Your task to perform on an android device: delete the emails in spam in the gmail app Image 0: 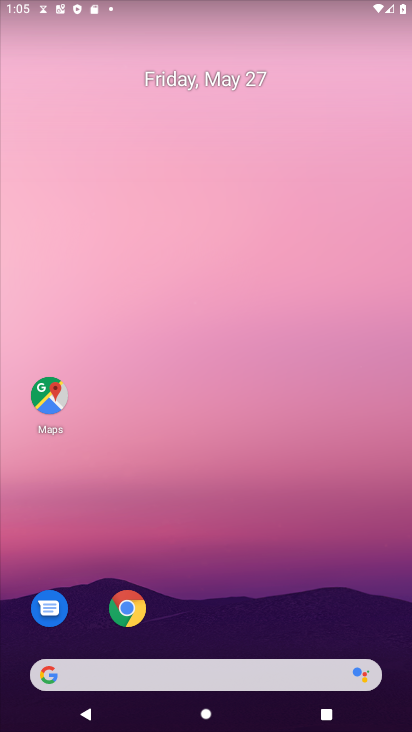
Step 0: drag from (189, 633) to (272, 84)
Your task to perform on an android device: delete the emails in spam in the gmail app Image 1: 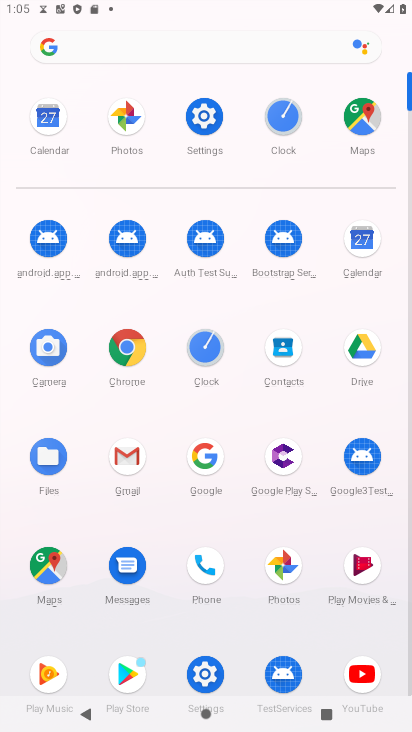
Step 1: click (126, 462)
Your task to perform on an android device: delete the emails in spam in the gmail app Image 2: 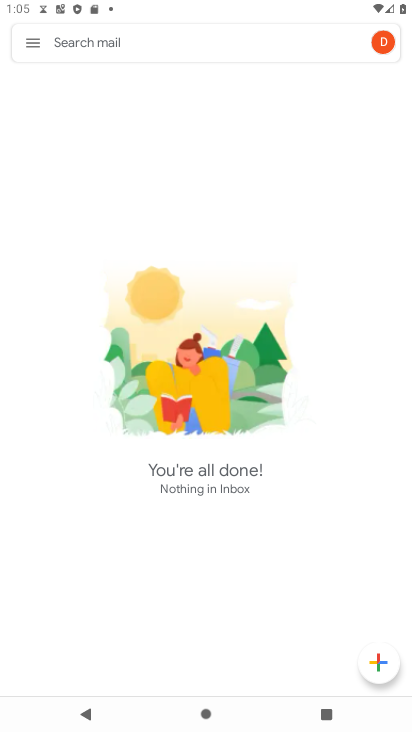
Step 2: click (27, 39)
Your task to perform on an android device: delete the emails in spam in the gmail app Image 3: 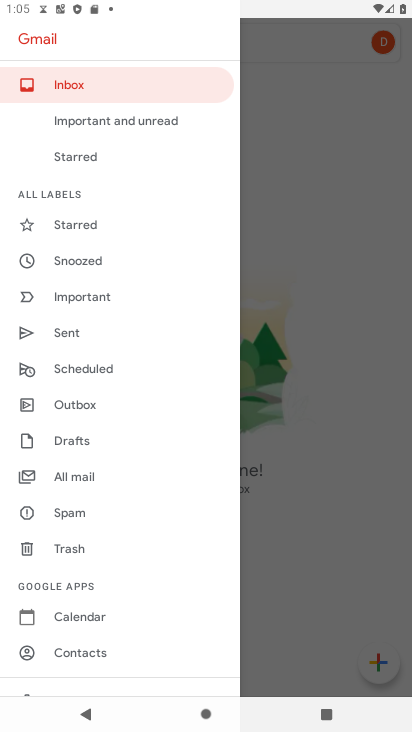
Step 3: click (64, 513)
Your task to perform on an android device: delete the emails in spam in the gmail app Image 4: 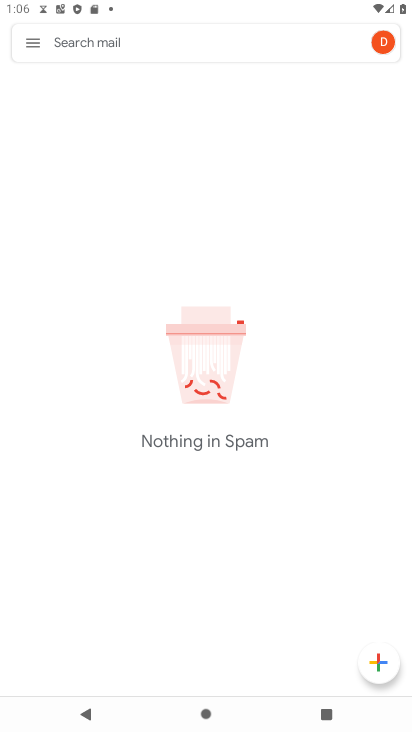
Step 4: task complete